Your task to perform on an android device: toggle improve location accuracy Image 0: 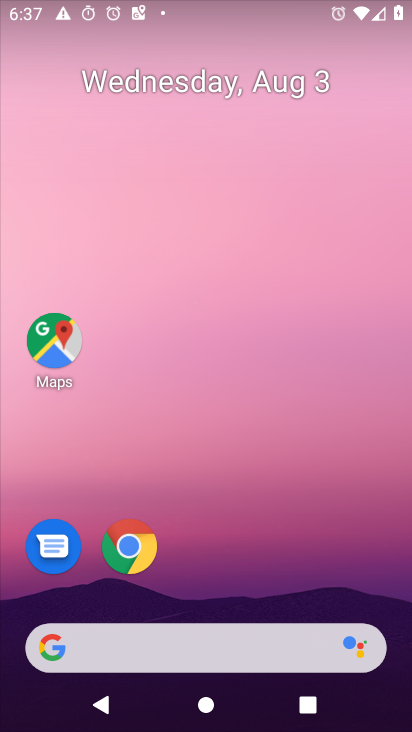
Step 0: press home button
Your task to perform on an android device: toggle improve location accuracy Image 1: 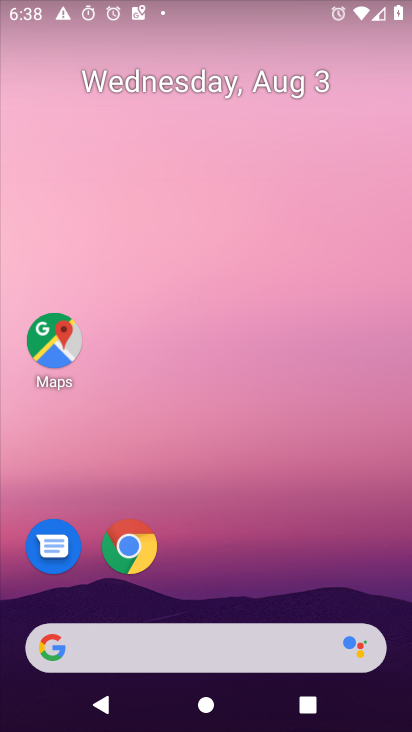
Step 1: drag from (222, 575) to (298, 119)
Your task to perform on an android device: toggle improve location accuracy Image 2: 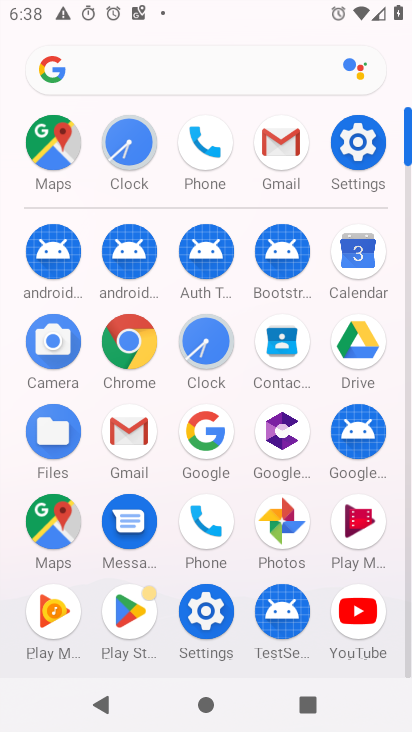
Step 2: click (342, 148)
Your task to perform on an android device: toggle improve location accuracy Image 3: 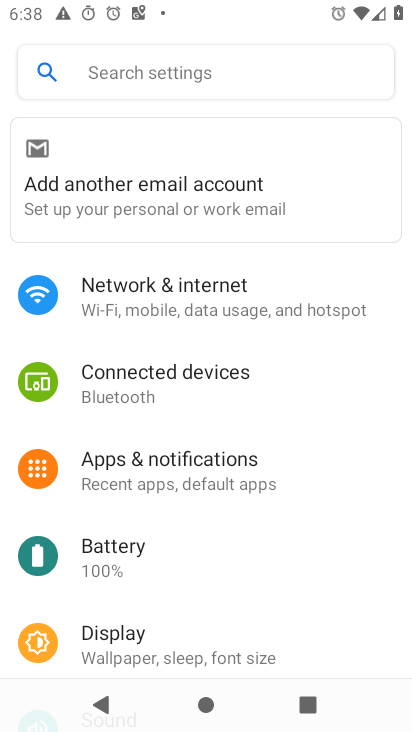
Step 3: drag from (305, 550) to (345, 7)
Your task to perform on an android device: toggle improve location accuracy Image 4: 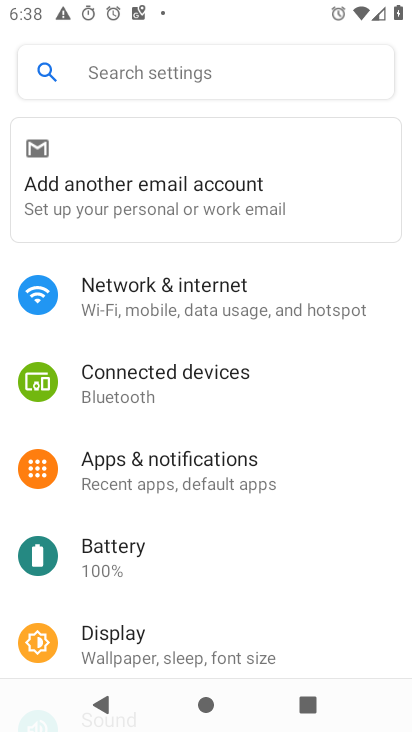
Step 4: drag from (330, 643) to (401, 3)
Your task to perform on an android device: toggle improve location accuracy Image 5: 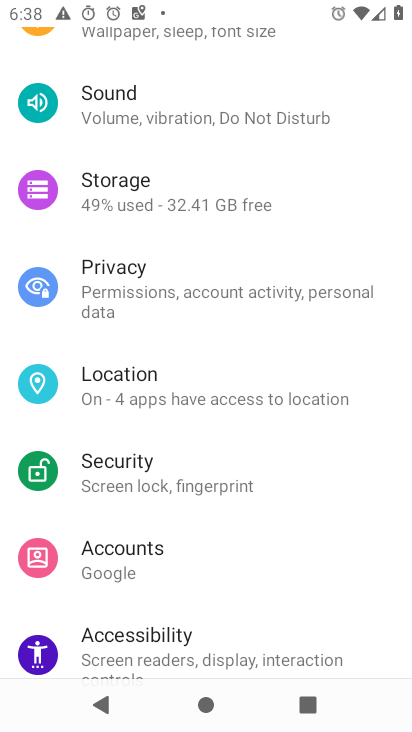
Step 5: click (99, 396)
Your task to perform on an android device: toggle improve location accuracy Image 6: 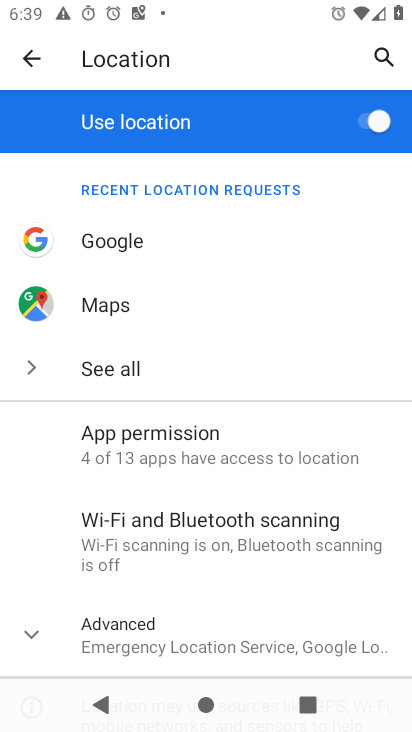
Step 6: click (116, 639)
Your task to perform on an android device: toggle improve location accuracy Image 7: 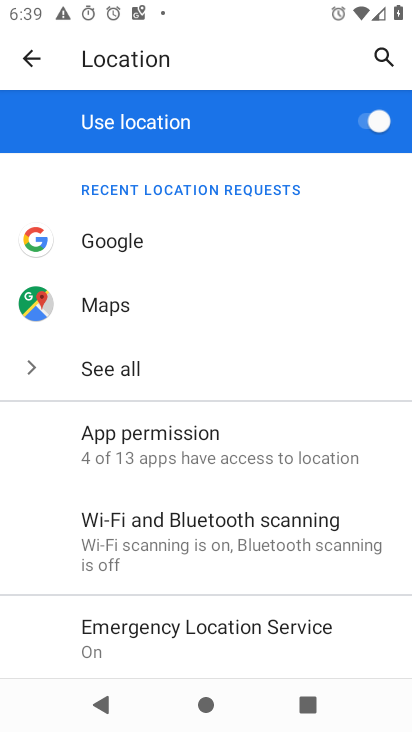
Step 7: drag from (343, 643) to (268, 58)
Your task to perform on an android device: toggle improve location accuracy Image 8: 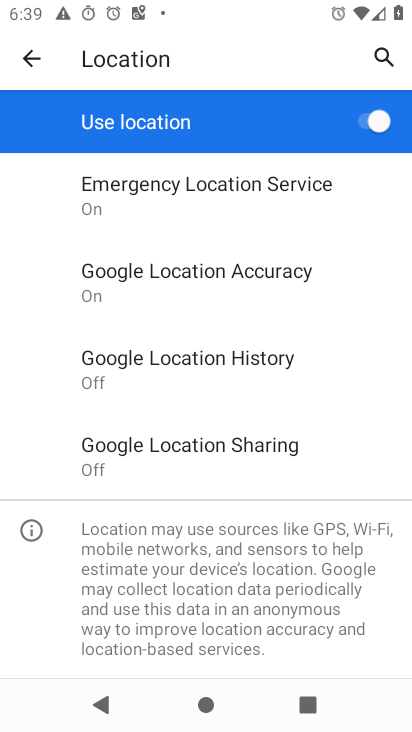
Step 8: click (222, 270)
Your task to perform on an android device: toggle improve location accuracy Image 9: 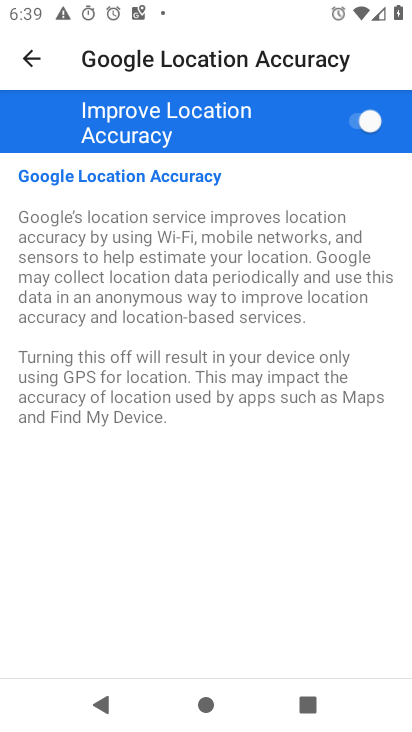
Step 9: click (375, 131)
Your task to perform on an android device: toggle improve location accuracy Image 10: 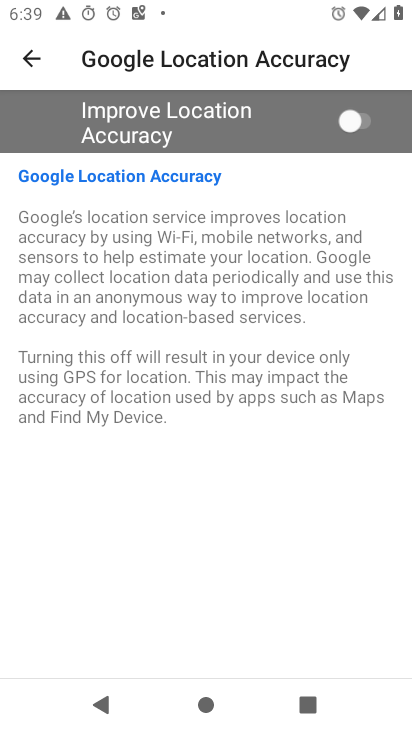
Step 10: task complete